Your task to perform on an android device: add a label to a message in the gmail app Image 0: 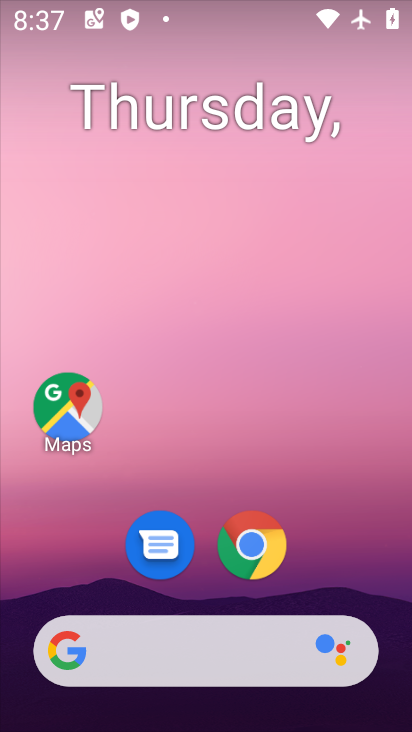
Step 0: drag from (329, 555) to (342, 227)
Your task to perform on an android device: add a label to a message in the gmail app Image 1: 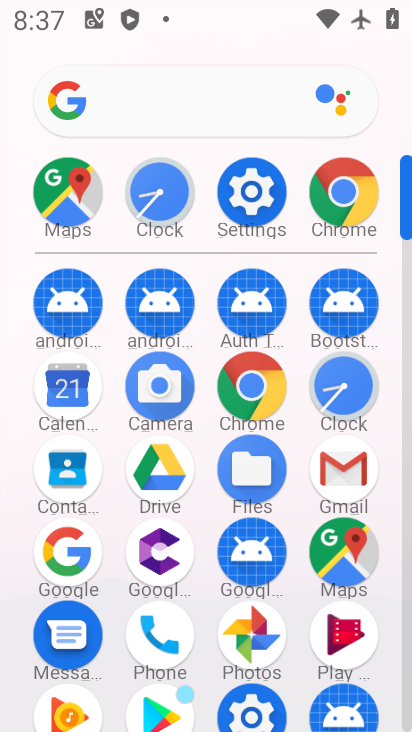
Step 1: click (356, 465)
Your task to perform on an android device: add a label to a message in the gmail app Image 2: 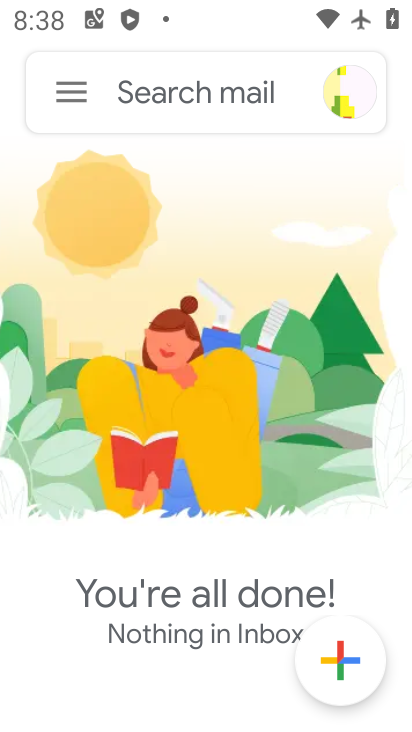
Step 2: click (74, 92)
Your task to perform on an android device: add a label to a message in the gmail app Image 3: 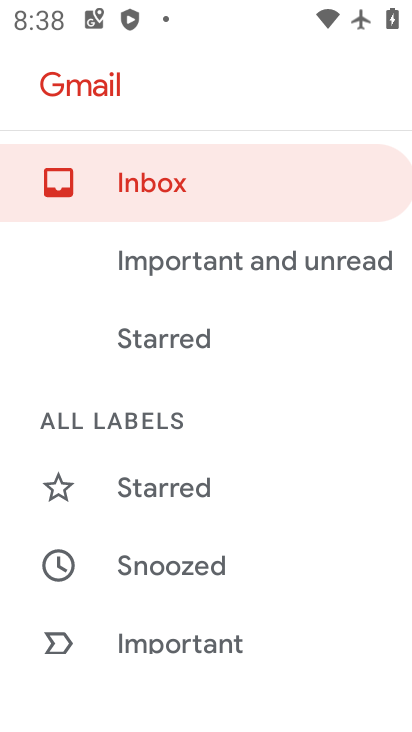
Step 3: drag from (177, 465) to (228, 160)
Your task to perform on an android device: add a label to a message in the gmail app Image 4: 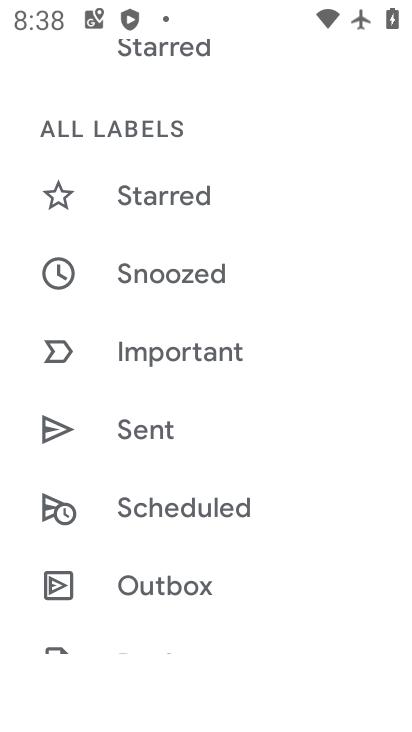
Step 4: drag from (185, 599) to (235, 222)
Your task to perform on an android device: add a label to a message in the gmail app Image 5: 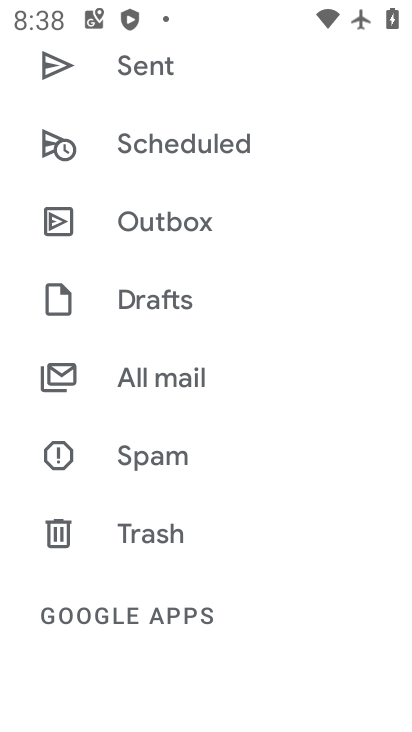
Step 5: click (183, 381)
Your task to perform on an android device: add a label to a message in the gmail app Image 6: 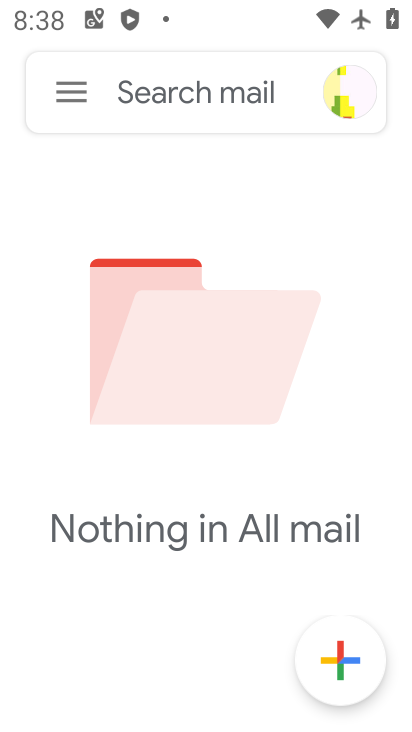
Step 6: task complete